Your task to perform on an android device: open chrome privacy settings Image 0: 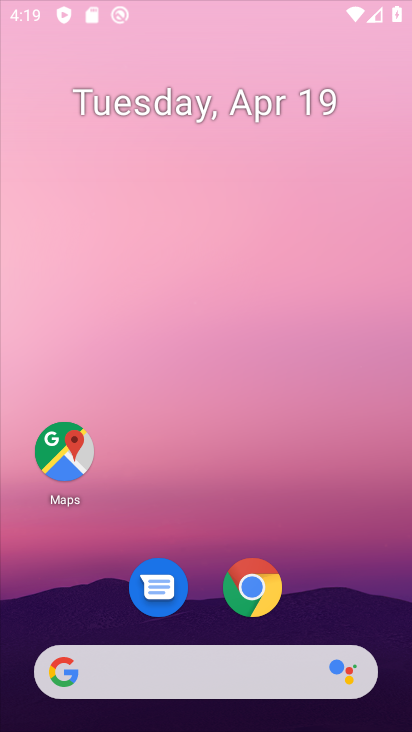
Step 0: drag from (351, 597) to (238, 22)
Your task to perform on an android device: open chrome privacy settings Image 1: 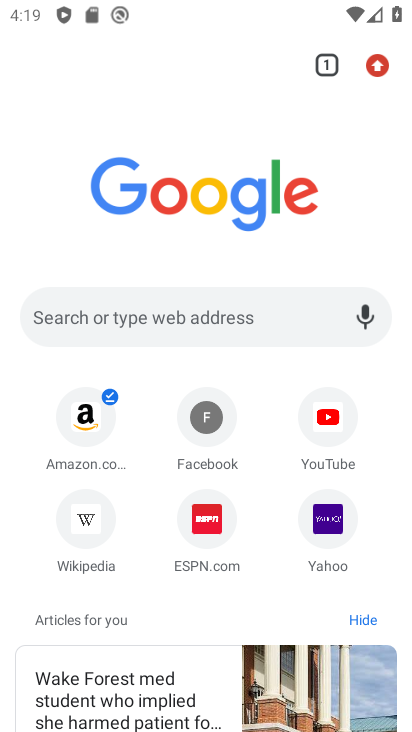
Step 1: click (178, 322)
Your task to perform on an android device: open chrome privacy settings Image 2: 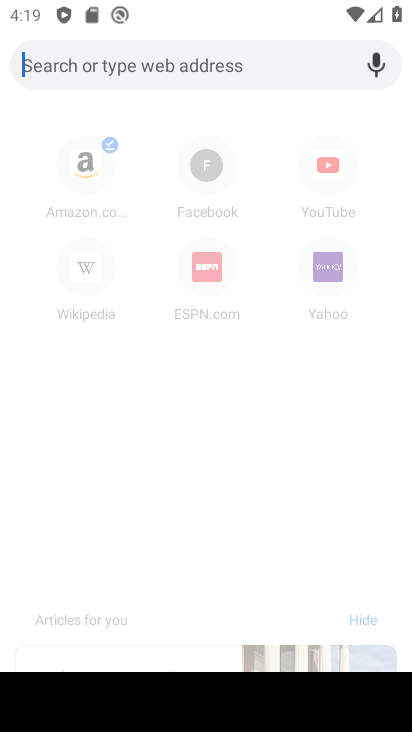
Step 2: press back button
Your task to perform on an android device: open chrome privacy settings Image 3: 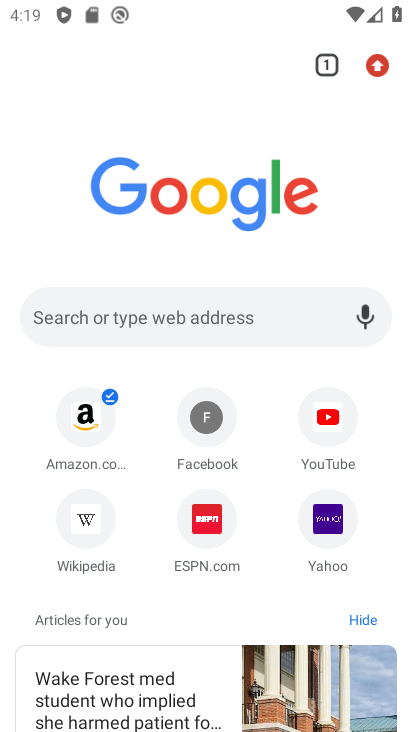
Step 3: drag from (373, 66) to (158, 627)
Your task to perform on an android device: open chrome privacy settings Image 4: 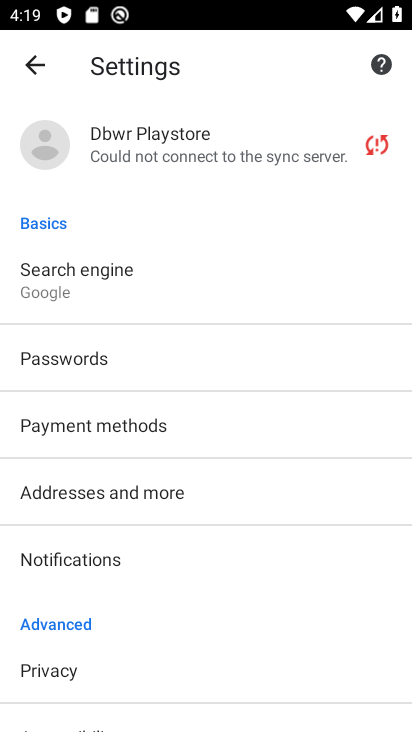
Step 4: drag from (188, 605) to (192, 199)
Your task to perform on an android device: open chrome privacy settings Image 5: 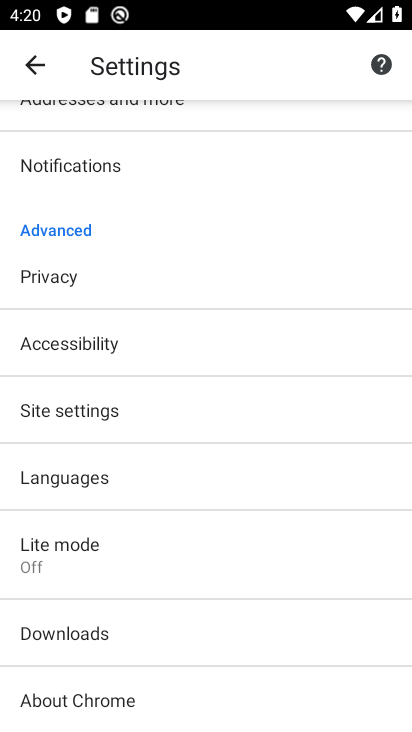
Step 5: click (93, 275)
Your task to perform on an android device: open chrome privacy settings Image 6: 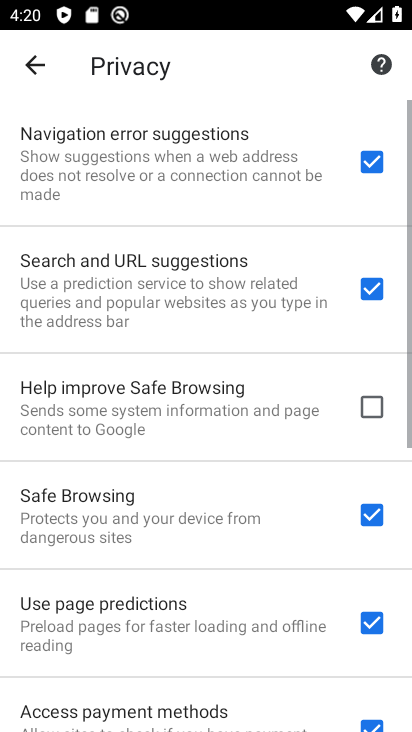
Step 6: task complete